Your task to perform on an android device: Search for "razer blade" on target.com, select the first entry, add it to the cart, then select checkout. Image 0: 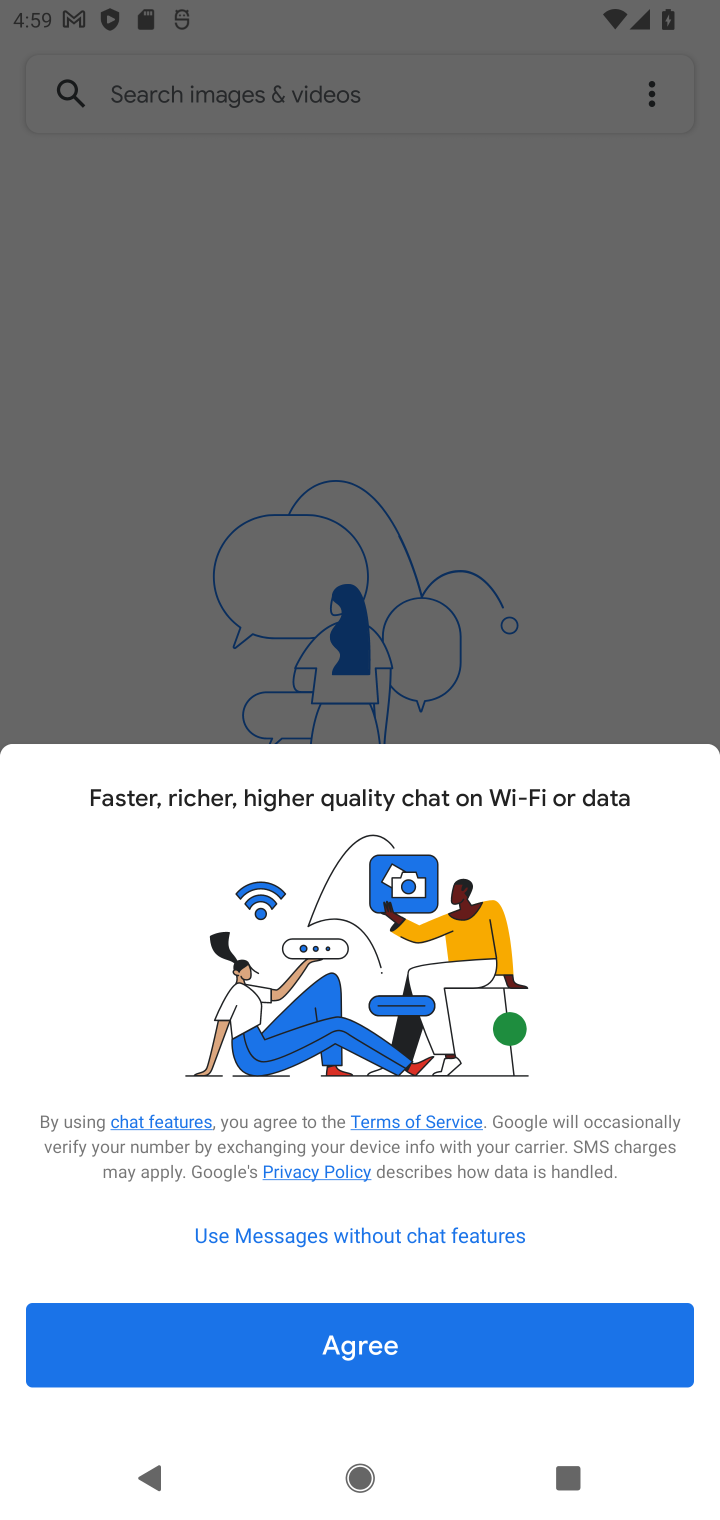
Step 0: press home button
Your task to perform on an android device: Search for "razer blade" on target.com, select the first entry, add it to the cart, then select checkout. Image 1: 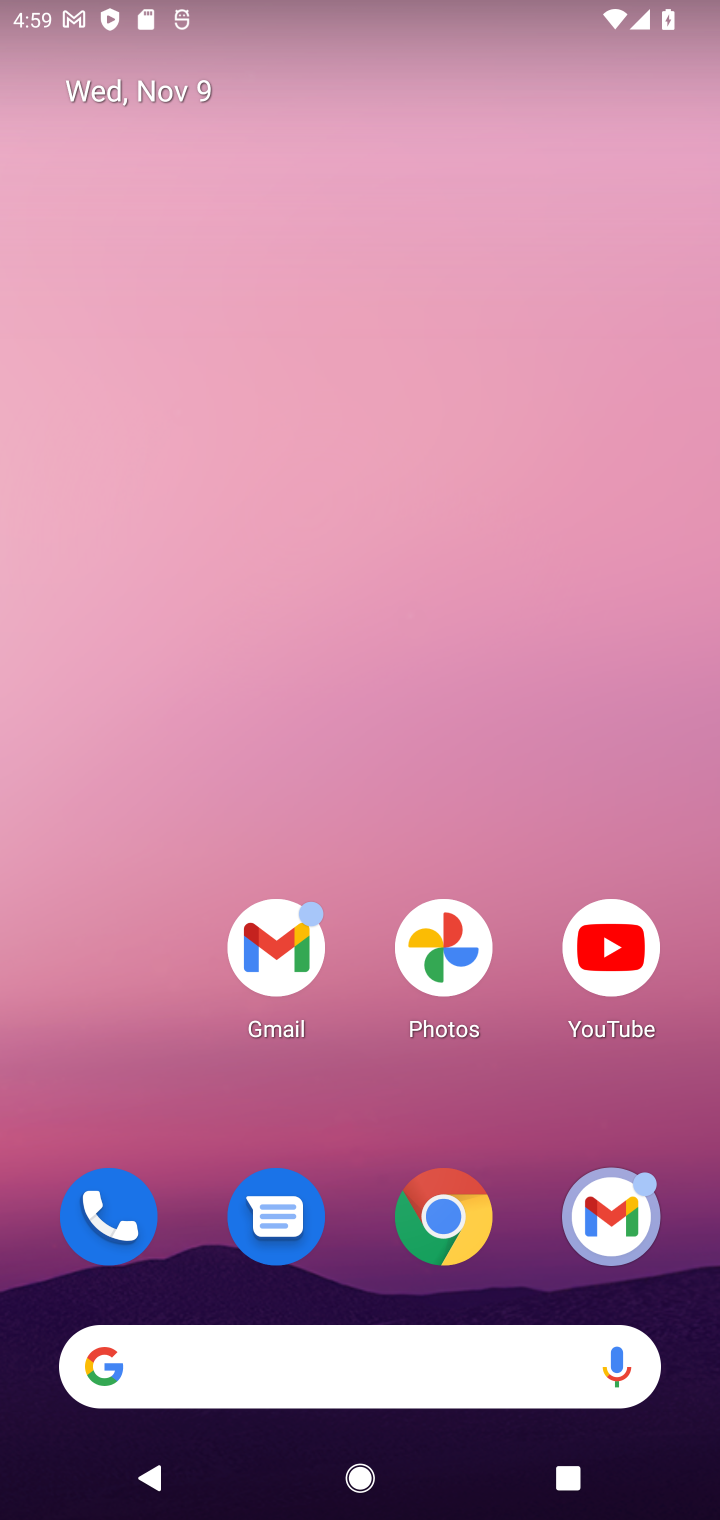
Step 1: drag from (352, 1116) to (273, 136)
Your task to perform on an android device: Search for "razer blade" on target.com, select the first entry, add it to the cart, then select checkout. Image 2: 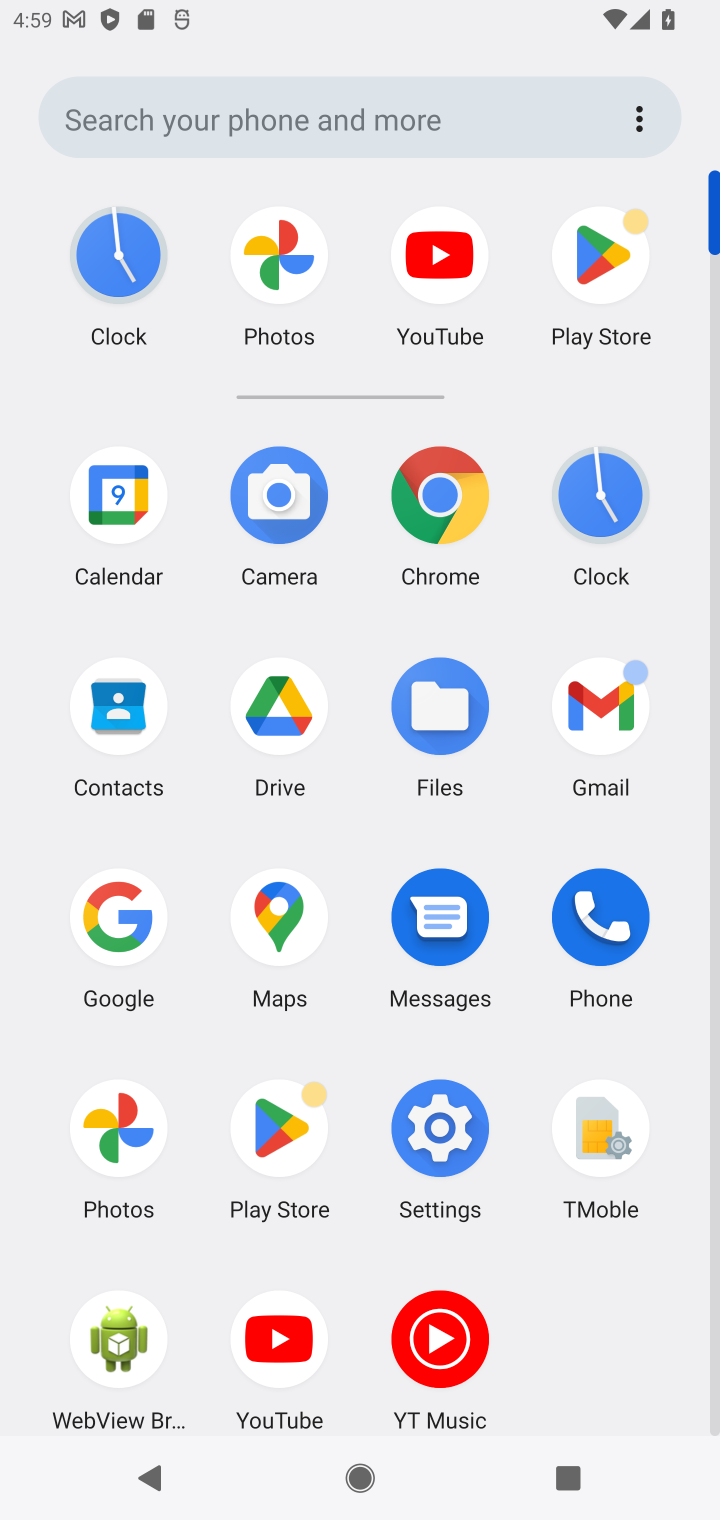
Step 2: click (443, 494)
Your task to perform on an android device: Search for "razer blade" on target.com, select the first entry, add it to the cart, then select checkout. Image 3: 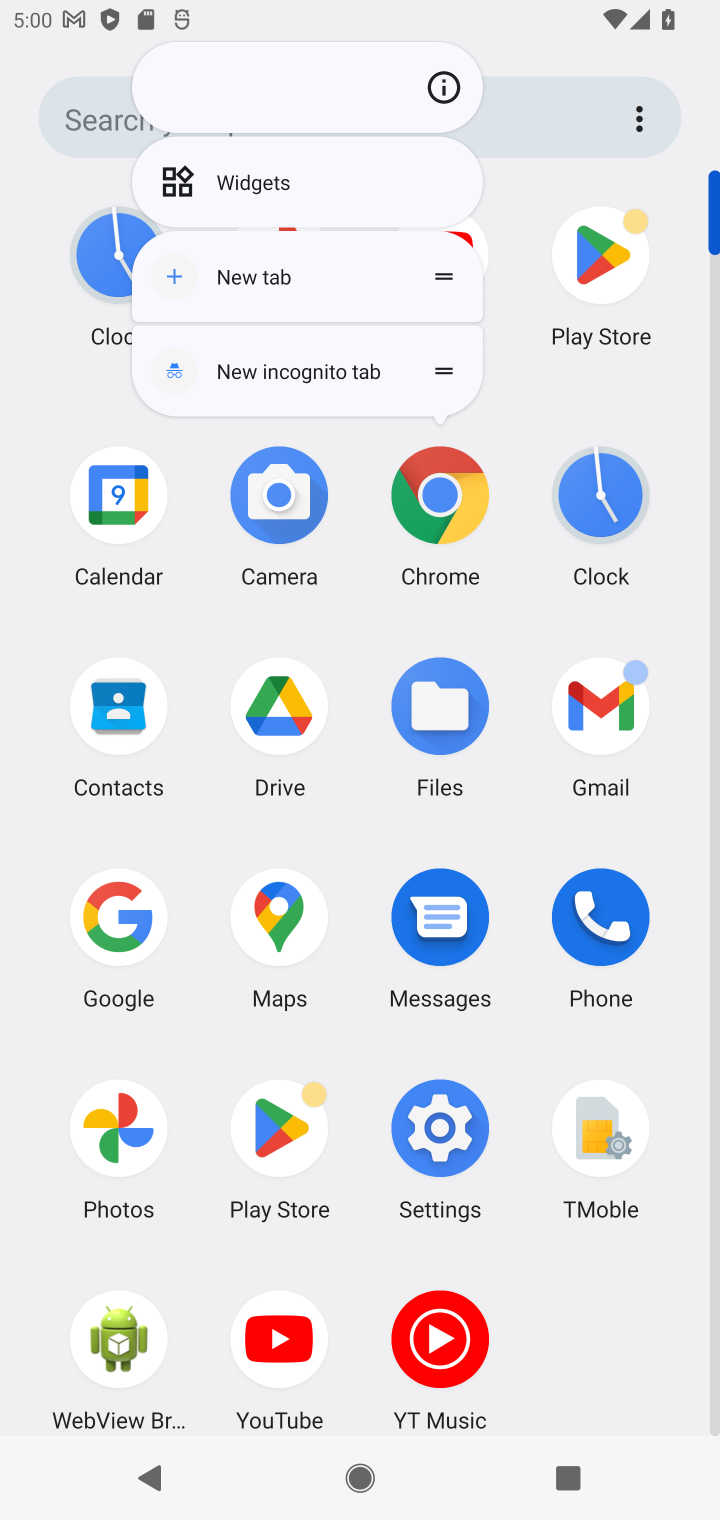
Step 3: click (445, 498)
Your task to perform on an android device: Search for "razer blade" on target.com, select the first entry, add it to the cart, then select checkout. Image 4: 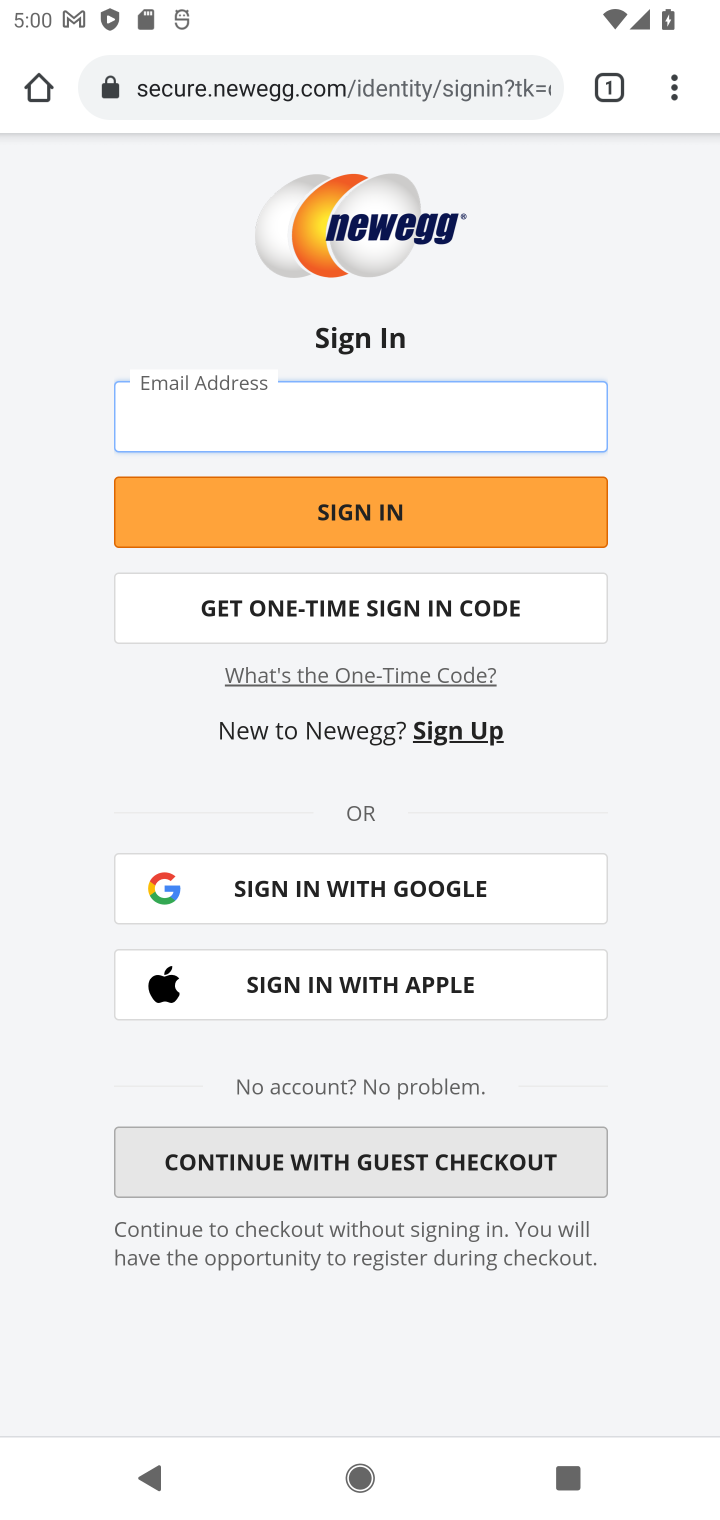
Step 4: click (395, 91)
Your task to perform on an android device: Search for "razer blade" on target.com, select the first entry, add it to the cart, then select checkout. Image 5: 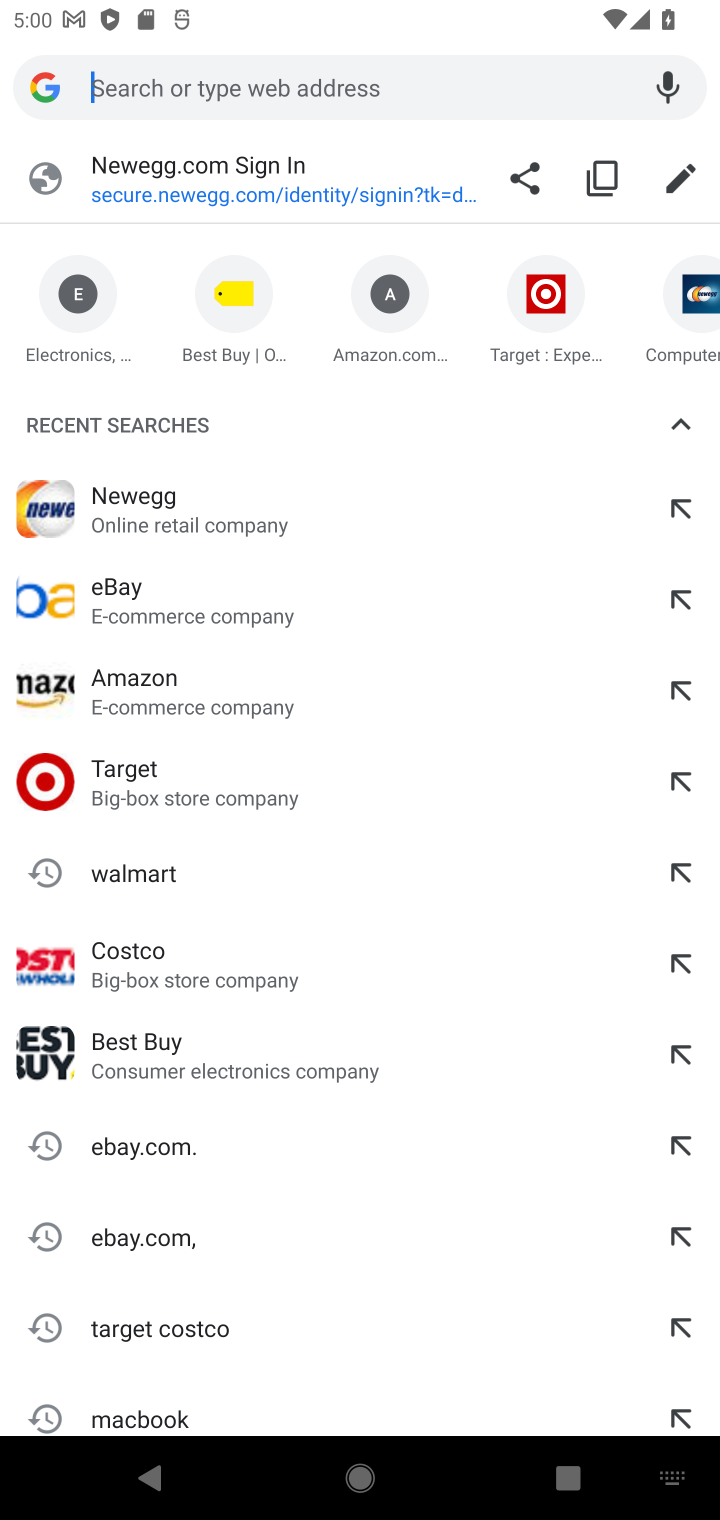
Step 5: type "target.com"
Your task to perform on an android device: Search for "razer blade" on target.com, select the first entry, add it to the cart, then select checkout. Image 6: 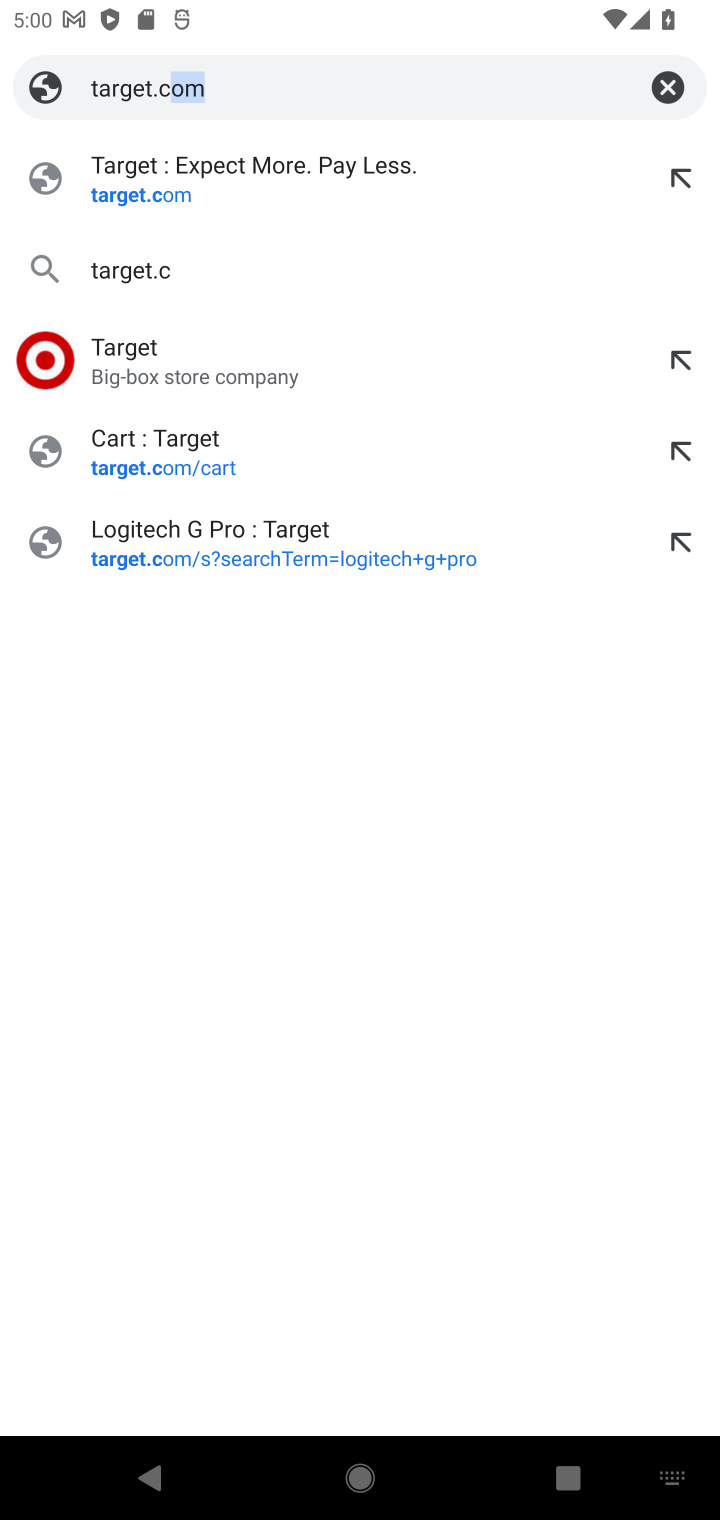
Step 6: press enter
Your task to perform on an android device: Search for "razer blade" on target.com, select the first entry, add it to the cart, then select checkout. Image 7: 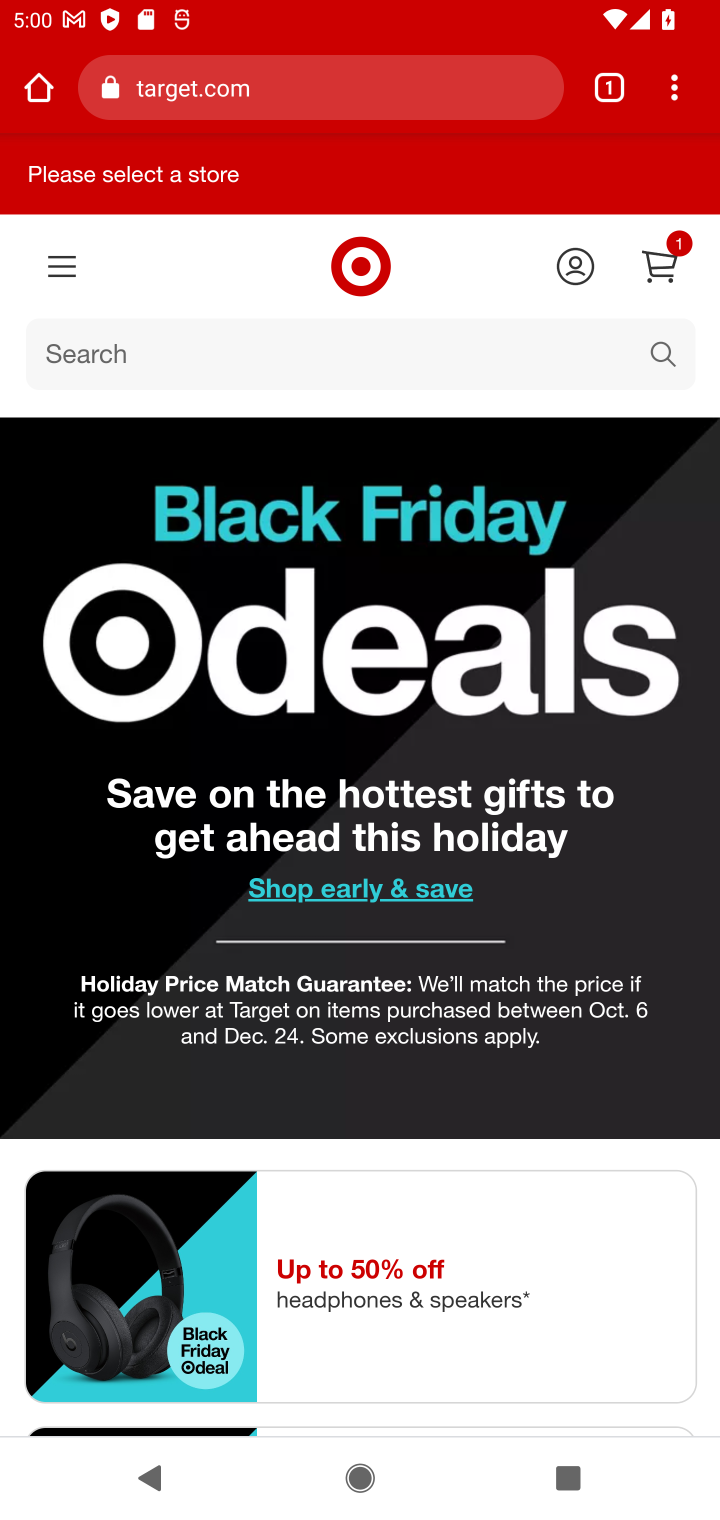
Step 7: click (365, 353)
Your task to perform on an android device: Search for "razer blade" on target.com, select the first entry, add it to the cart, then select checkout. Image 8: 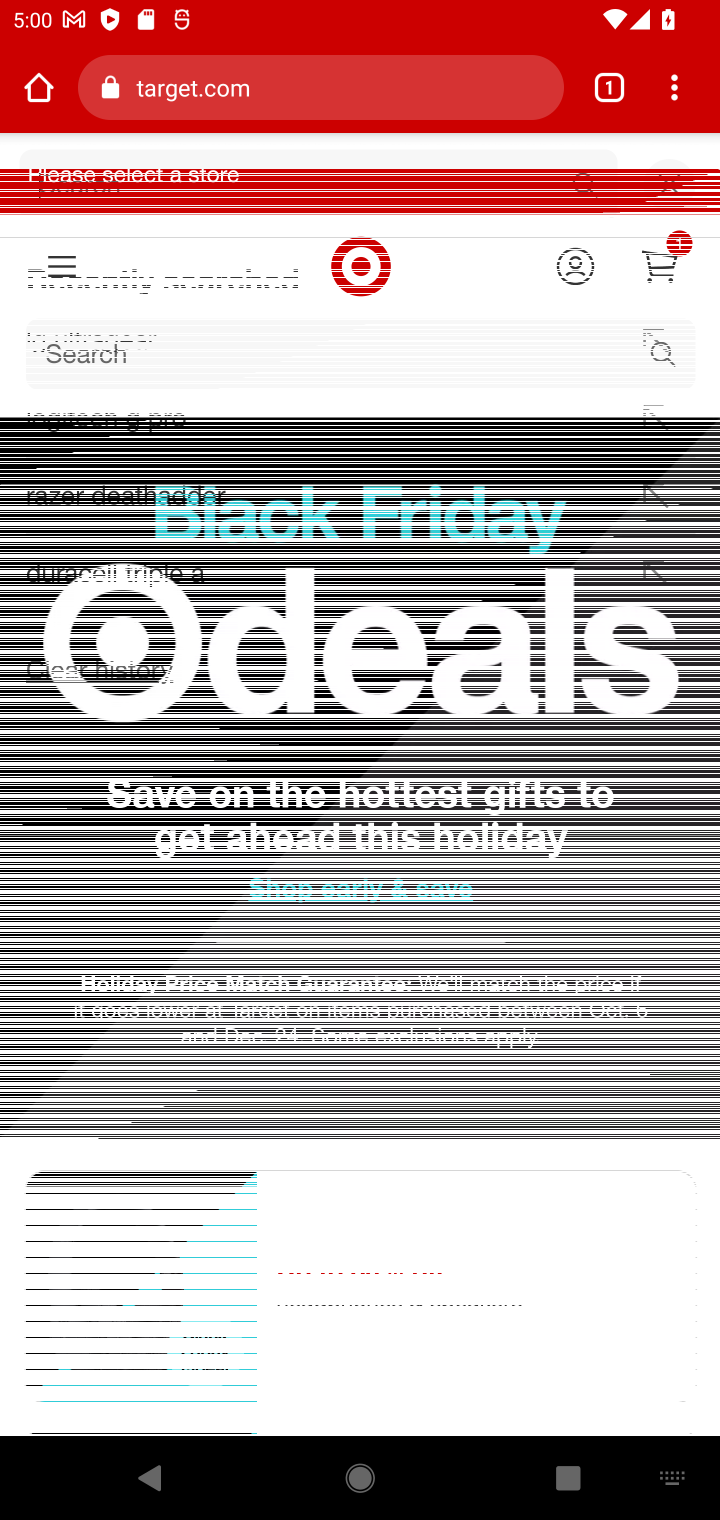
Step 8: type "razer blade"
Your task to perform on an android device: Search for "razer blade" on target.com, select the first entry, add it to the cart, then select checkout. Image 9: 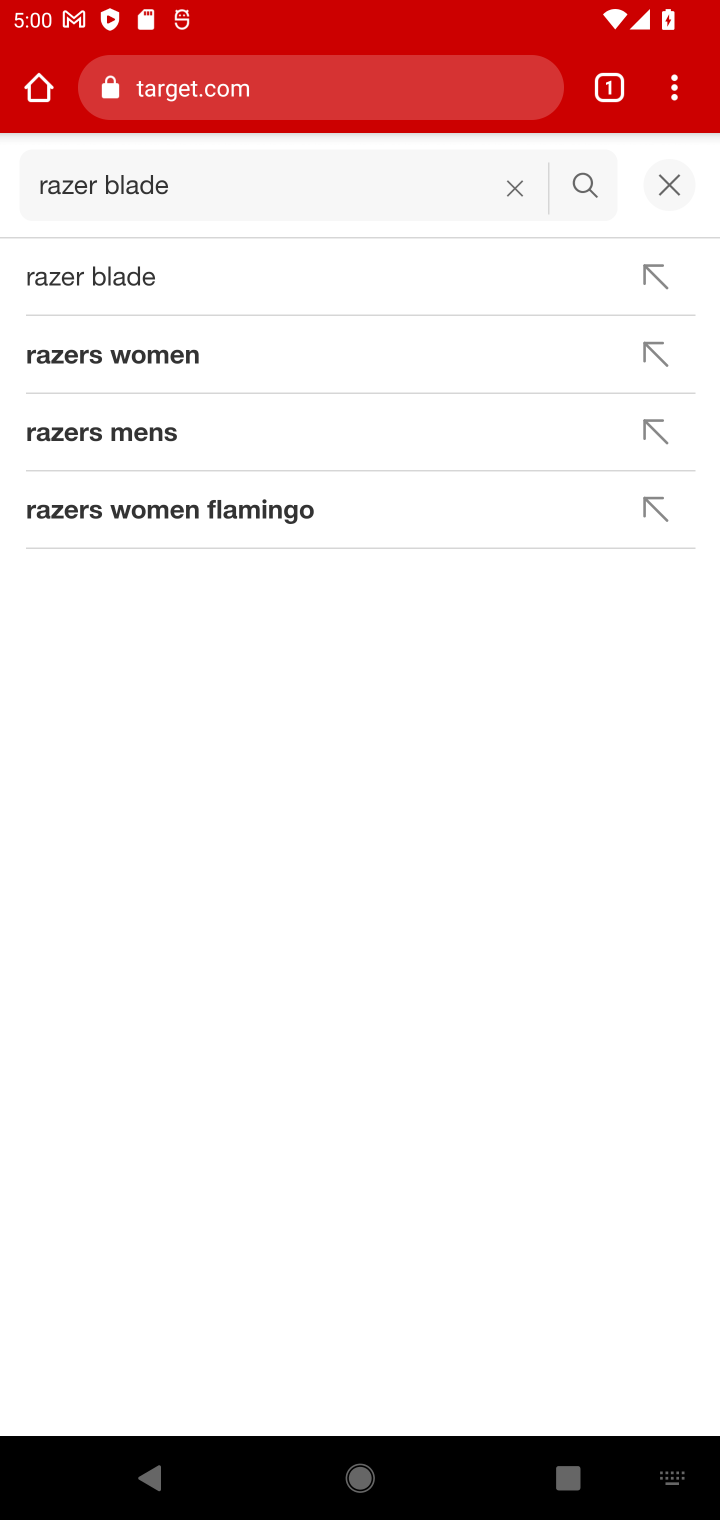
Step 9: press enter
Your task to perform on an android device: Search for "razer blade" on target.com, select the first entry, add it to the cart, then select checkout. Image 10: 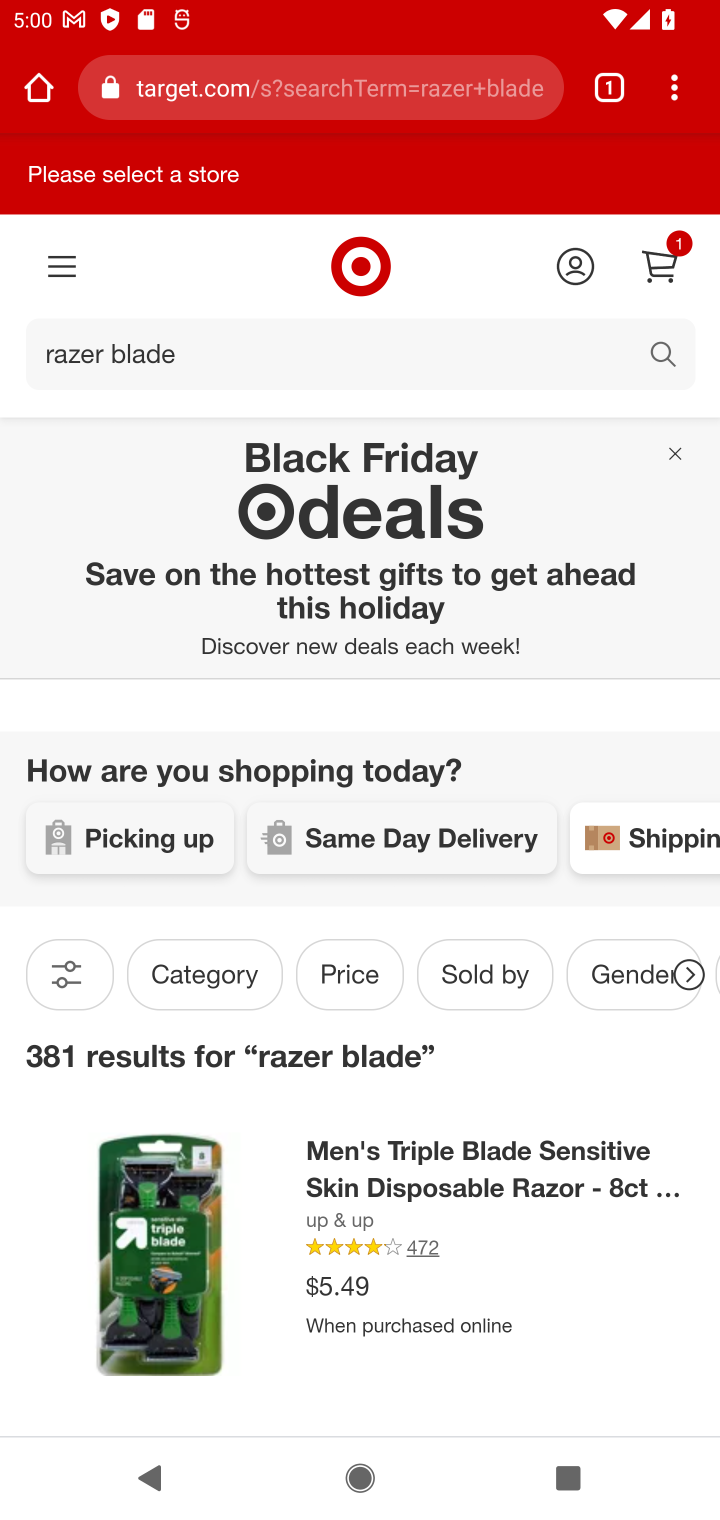
Step 10: task complete